Your task to perform on an android device: Is it going to rain tomorrow? Image 0: 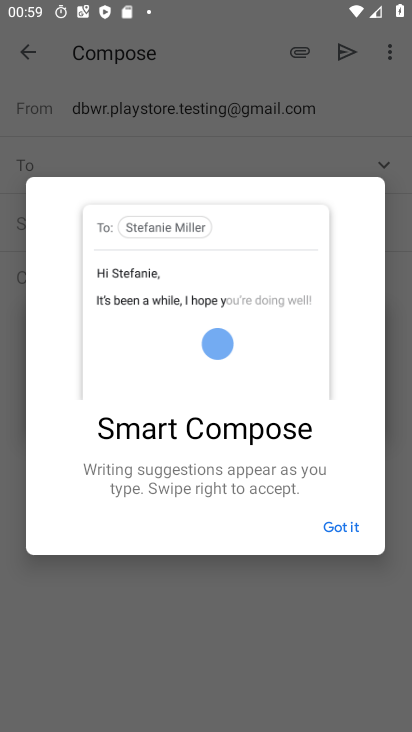
Step 0: press home button
Your task to perform on an android device: Is it going to rain tomorrow? Image 1: 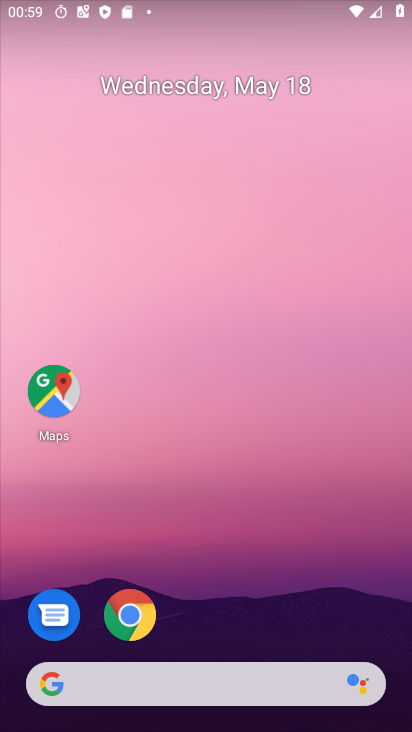
Step 1: drag from (210, 615) to (238, 213)
Your task to perform on an android device: Is it going to rain tomorrow? Image 2: 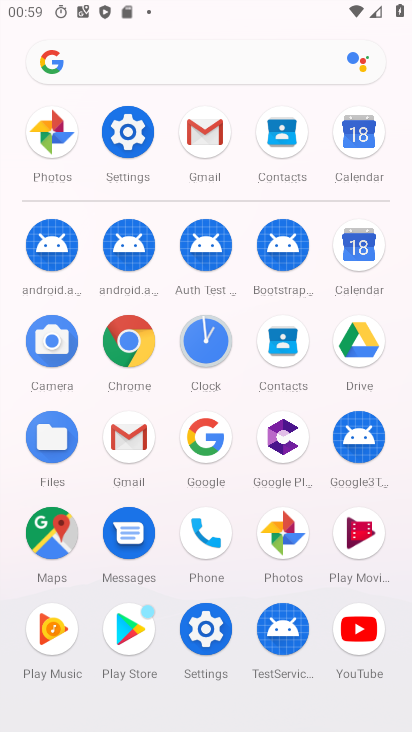
Step 2: click (201, 429)
Your task to perform on an android device: Is it going to rain tomorrow? Image 3: 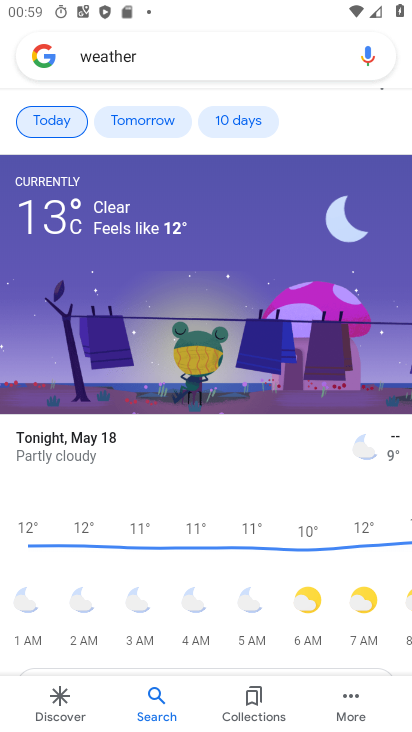
Step 3: click (200, 61)
Your task to perform on an android device: Is it going to rain tomorrow? Image 4: 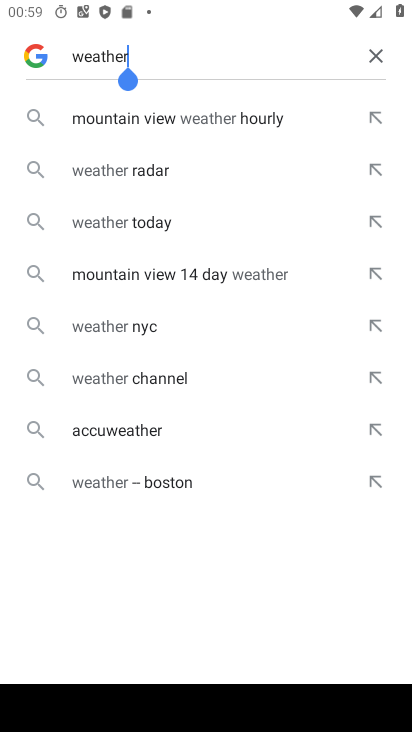
Step 4: click (370, 56)
Your task to perform on an android device: Is it going to rain tomorrow? Image 5: 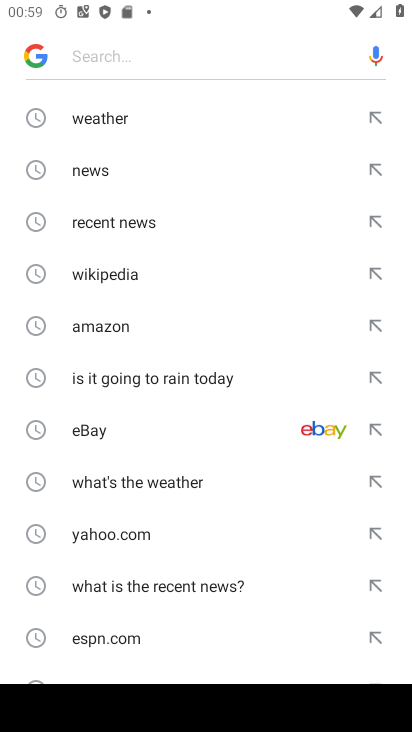
Step 5: click (134, 107)
Your task to perform on an android device: Is it going to rain tomorrow? Image 6: 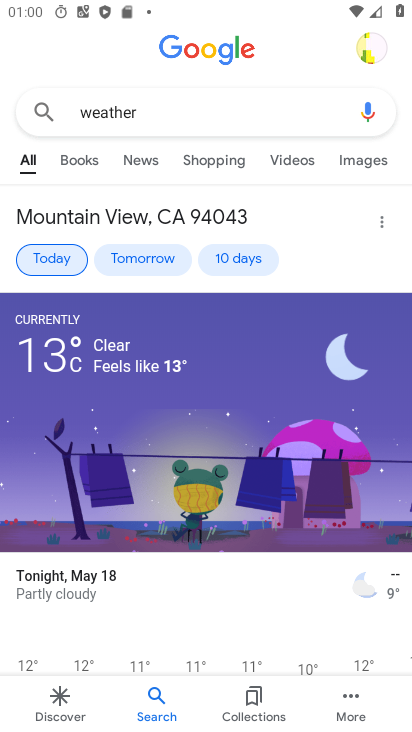
Step 6: click (137, 259)
Your task to perform on an android device: Is it going to rain tomorrow? Image 7: 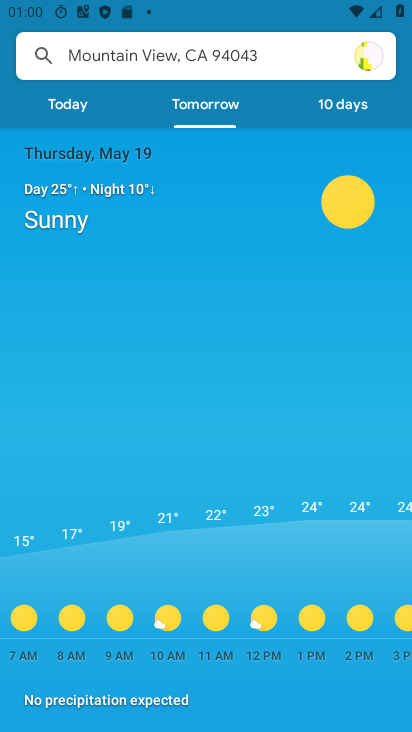
Step 7: task complete